Your task to perform on an android device: create a new album in the google photos Image 0: 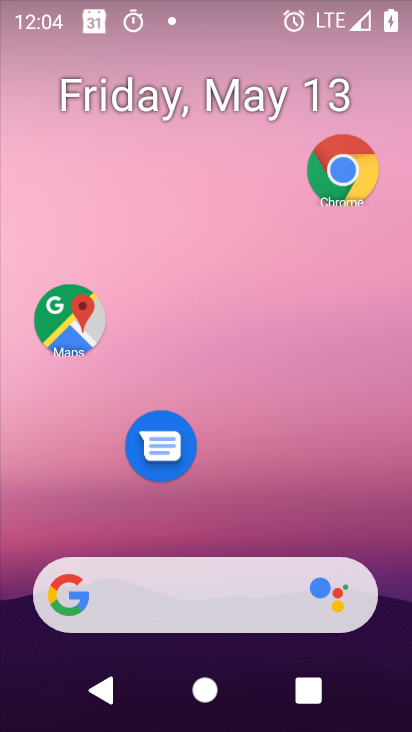
Step 0: drag from (343, 560) to (366, 72)
Your task to perform on an android device: create a new album in the google photos Image 1: 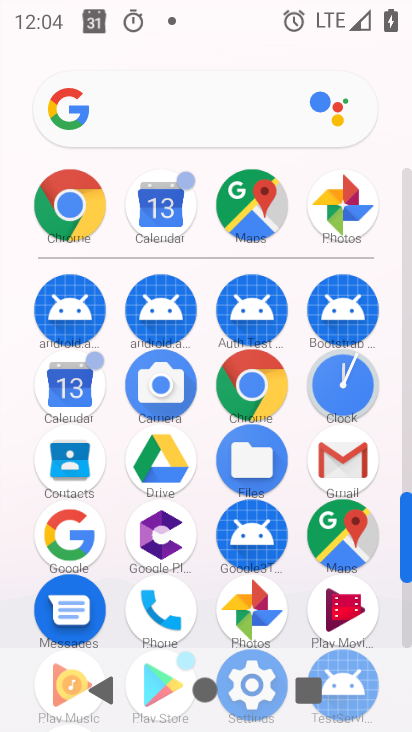
Step 1: click (241, 621)
Your task to perform on an android device: create a new album in the google photos Image 2: 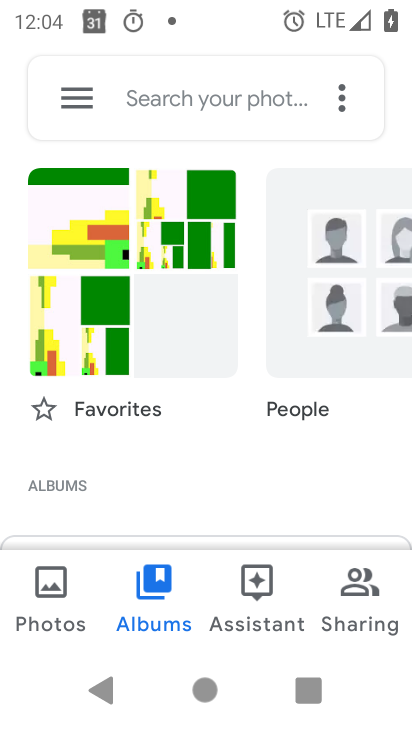
Step 2: drag from (251, 505) to (215, 96)
Your task to perform on an android device: create a new album in the google photos Image 3: 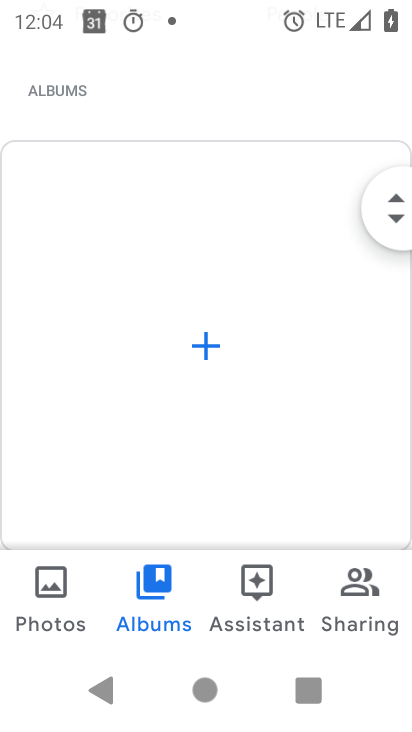
Step 3: click (207, 338)
Your task to perform on an android device: create a new album in the google photos Image 4: 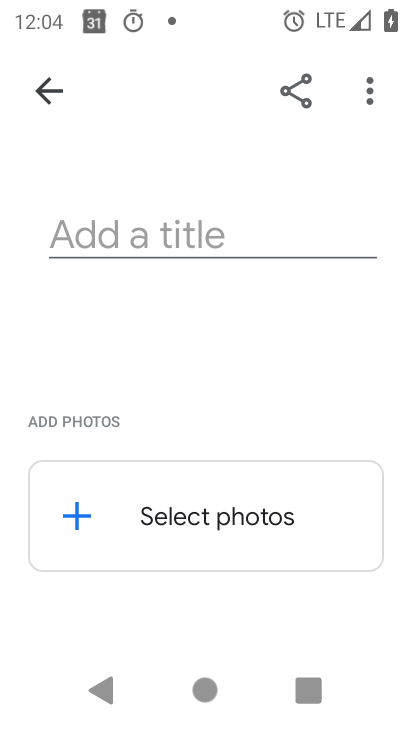
Step 4: click (195, 216)
Your task to perform on an android device: create a new album in the google photos Image 5: 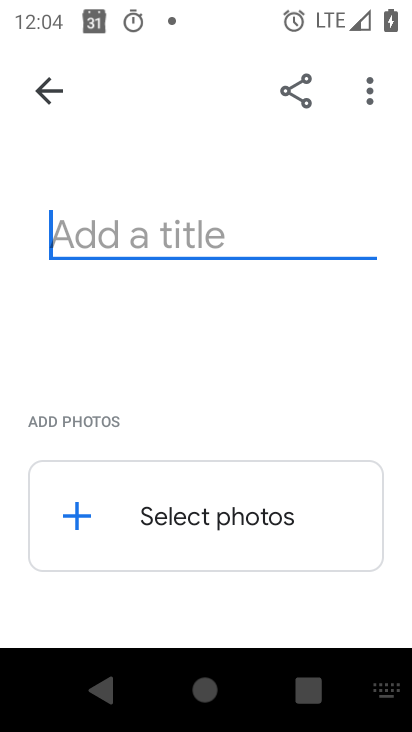
Step 5: type "hgftkjhbn"
Your task to perform on an android device: create a new album in the google photos Image 6: 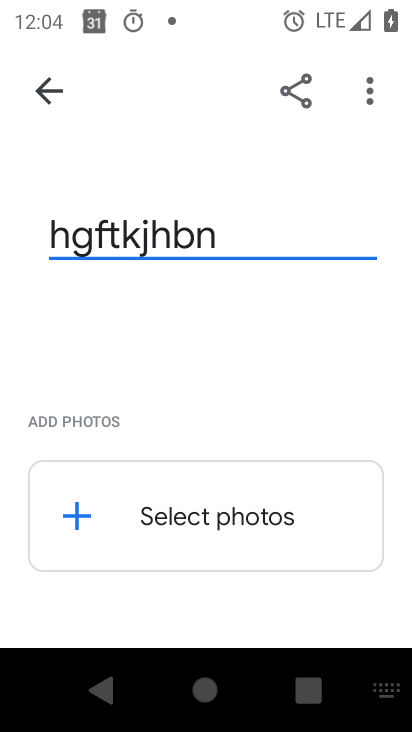
Step 6: click (69, 515)
Your task to perform on an android device: create a new album in the google photos Image 7: 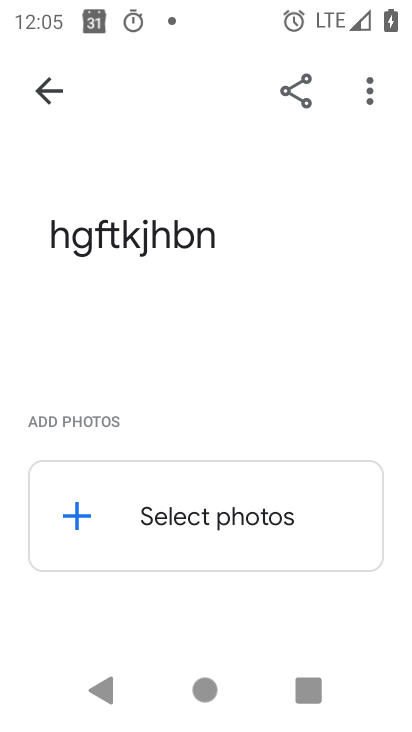
Step 7: click (77, 518)
Your task to perform on an android device: create a new album in the google photos Image 8: 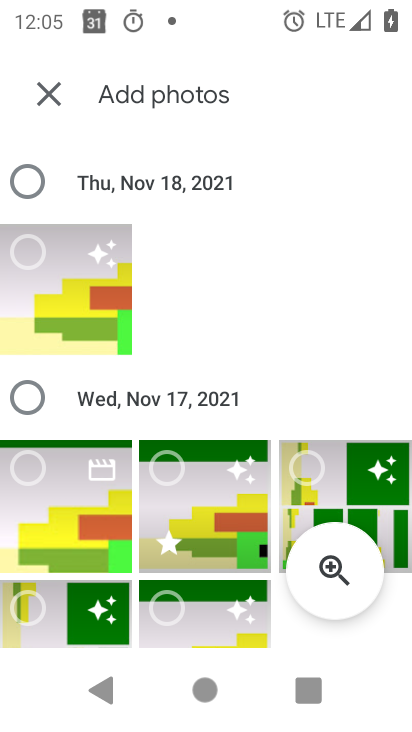
Step 8: click (58, 331)
Your task to perform on an android device: create a new album in the google photos Image 9: 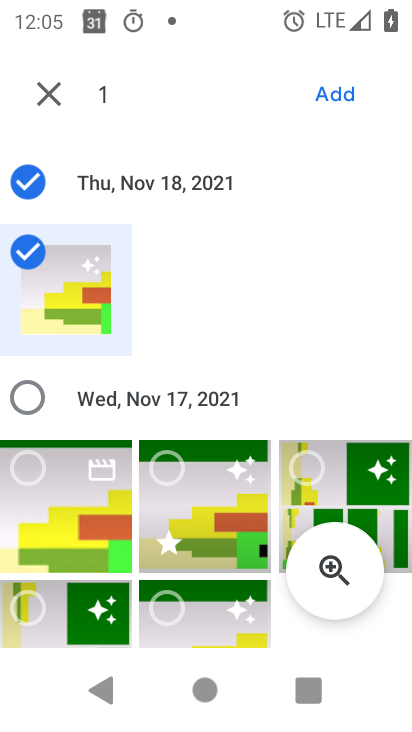
Step 9: click (324, 89)
Your task to perform on an android device: create a new album in the google photos Image 10: 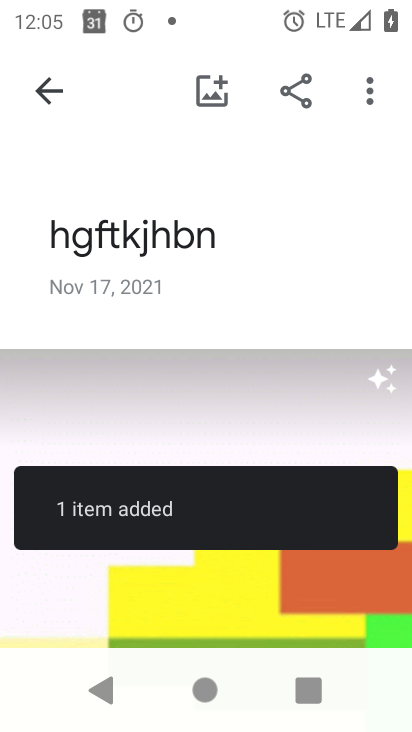
Step 10: task complete